Your task to perform on an android device: When is my next meeting? Image 0: 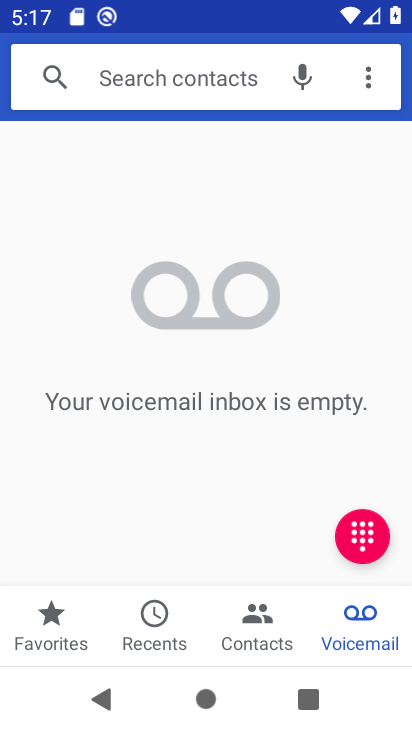
Step 0: click (342, 535)
Your task to perform on an android device: When is my next meeting? Image 1: 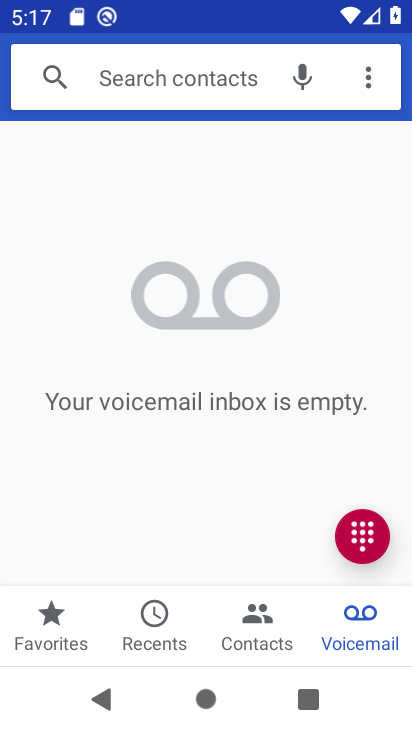
Step 1: press home button
Your task to perform on an android device: When is my next meeting? Image 2: 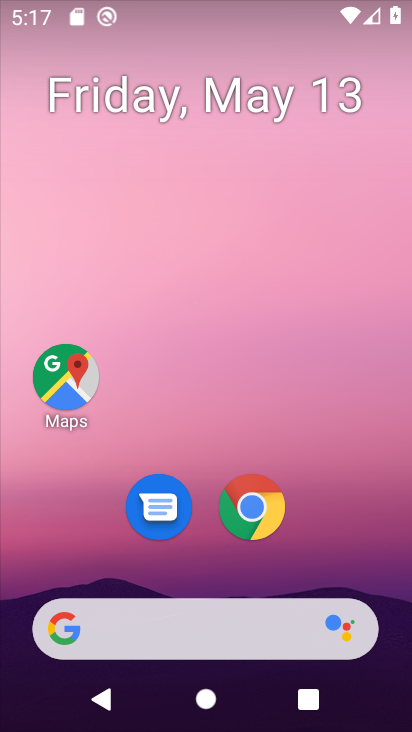
Step 2: drag from (346, 529) to (168, 23)
Your task to perform on an android device: When is my next meeting? Image 3: 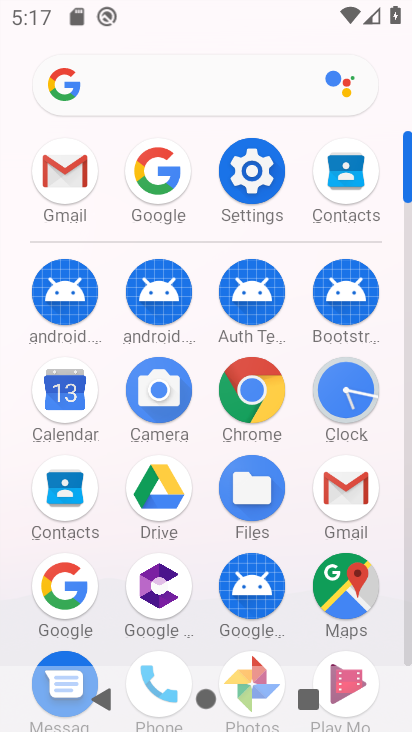
Step 3: click (79, 380)
Your task to perform on an android device: When is my next meeting? Image 4: 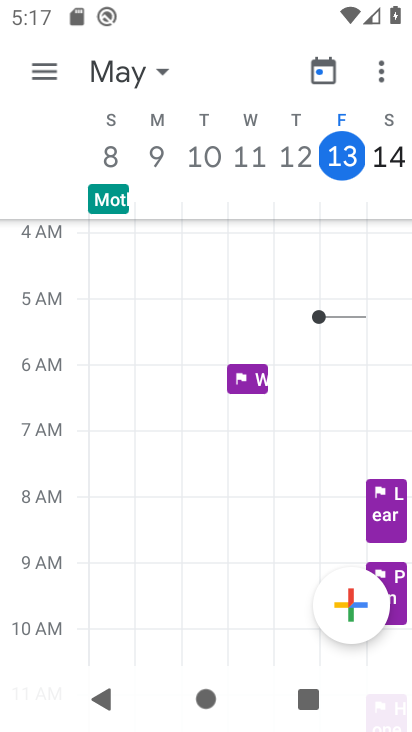
Step 4: task complete